Your task to perform on an android device: Open calendar and show me the first week of next month Image 0: 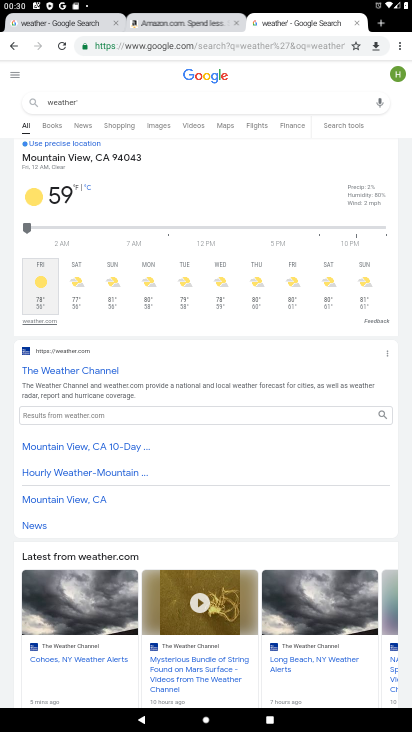
Step 0: press home button
Your task to perform on an android device: Open calendar and show me the first week of next month Image 1: 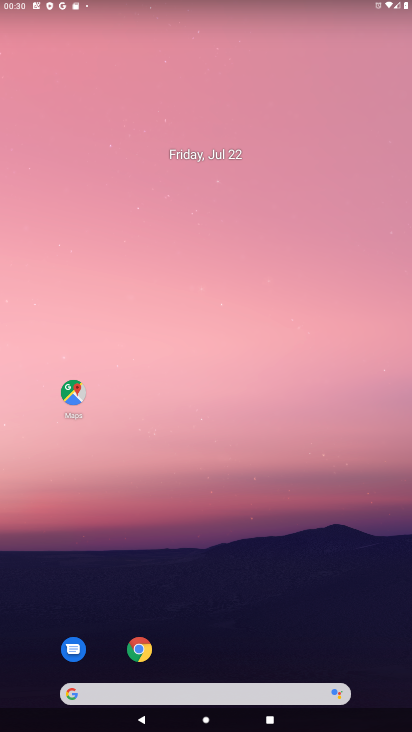
Step 1: drag from (301, 585) to (262, 101)
Your task to perform on an android device: Open calendar and show me the first week of next month Image 2: 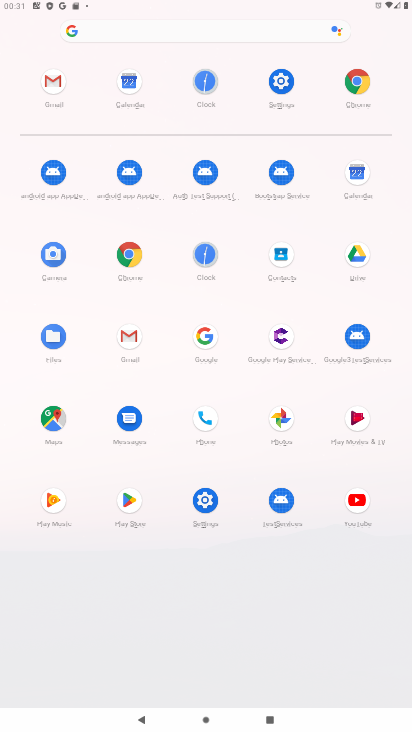
Step 2: click (361, 168)
Your task to perform on an android device: Open calendar and show me the first week of next month Image 3: 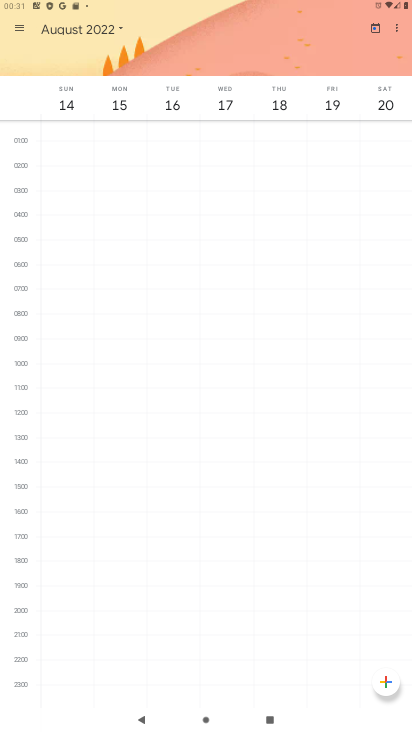
Step 3: click (94, 22)
Your task to perform on an android device: Open calendar and show me the first week of next month Image 4: 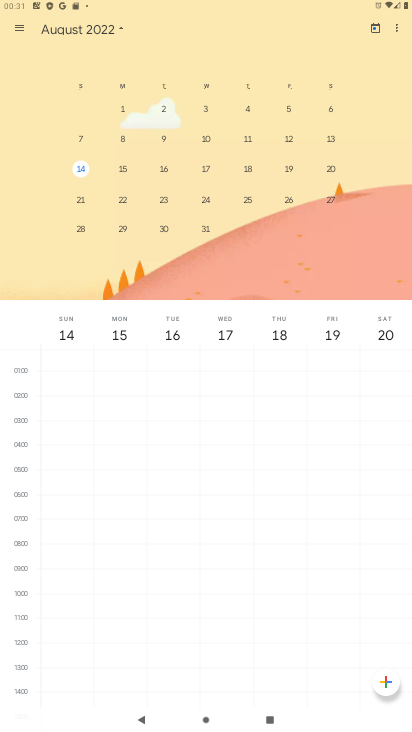
Step 4: click (165, 109)
Your task to perform on an android device: Open calendar and show me the first week of next month Image 5: 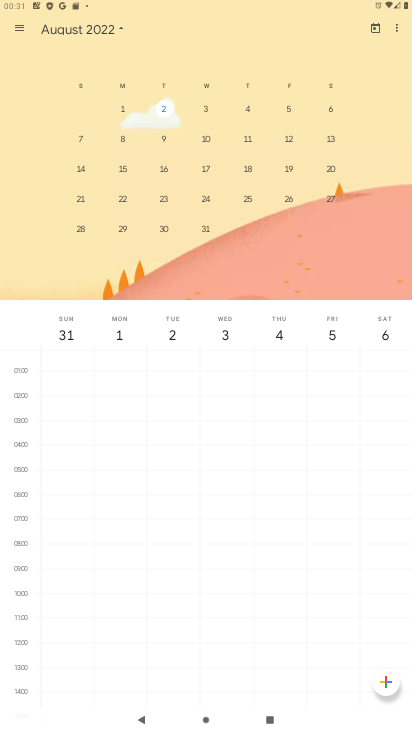
Step 5: task complete